Your task to perform on an android device: change the upload size in google photos Image 0: 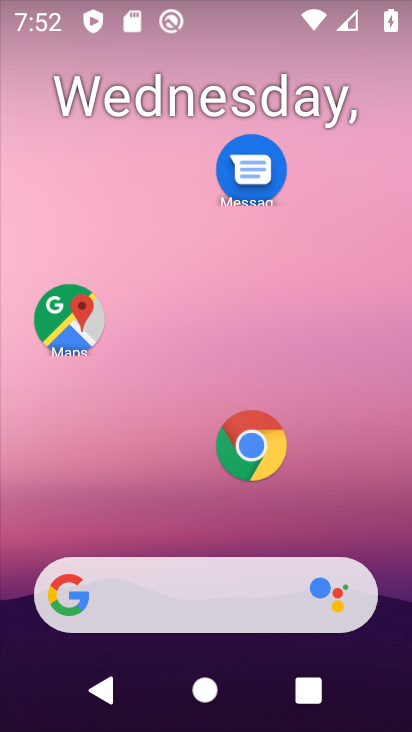
Step 0: drag from (262, 687) to (211, 215)
Your task to perform on an android device: change the upload size in google photos Image 1: 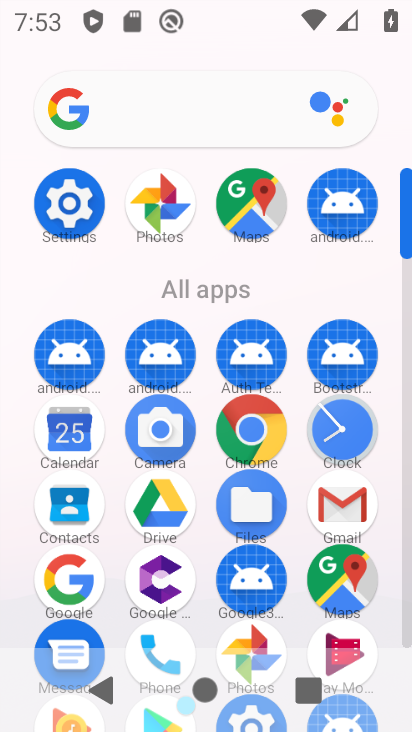
Step 1: click (245, 641)
Your task to perform on an android device: change the upload size in google photos Image 2: 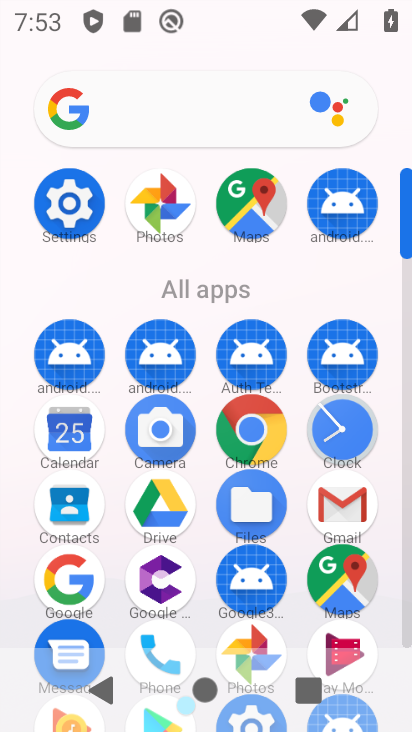
Step 2: click (246, 642)
Your task to perform on an android device: change the upload size in google photos Image 3: 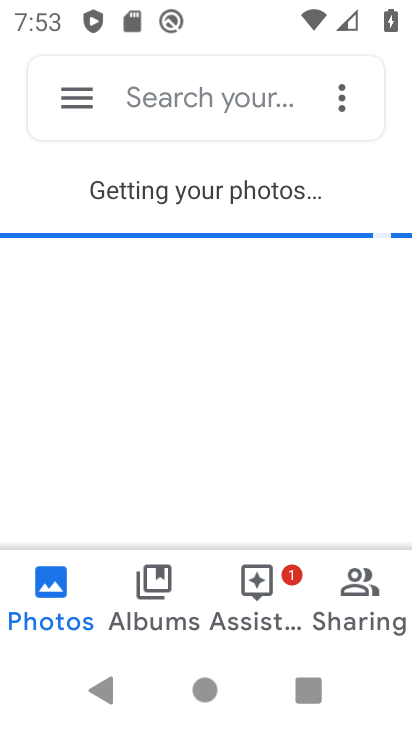
Step 3: click (75, 103)
Your task to perform on an android device: change the upload size in google photos Image 4: 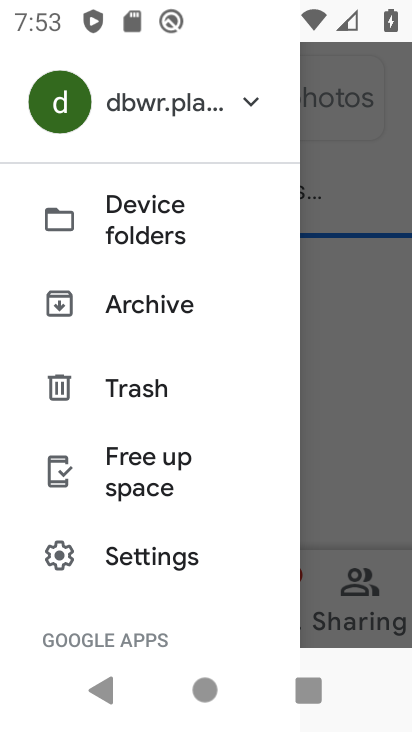
Step 4: click (138, 562)
Your task to perform on an android device: change the upload size in google photos Image 5: 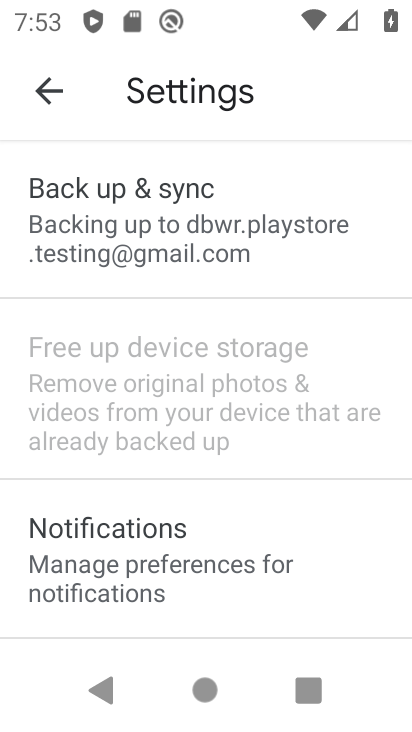
Step 5: click (115, 212)
Your task to perform on an android device: change the upload size in google photos Image 6: 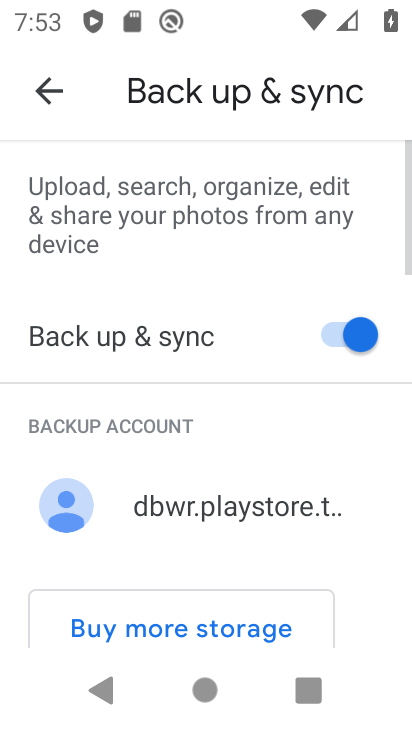
Step 6: click (114, 197)
Your task to perform on an android device: change the upload size in google photos Image 7: 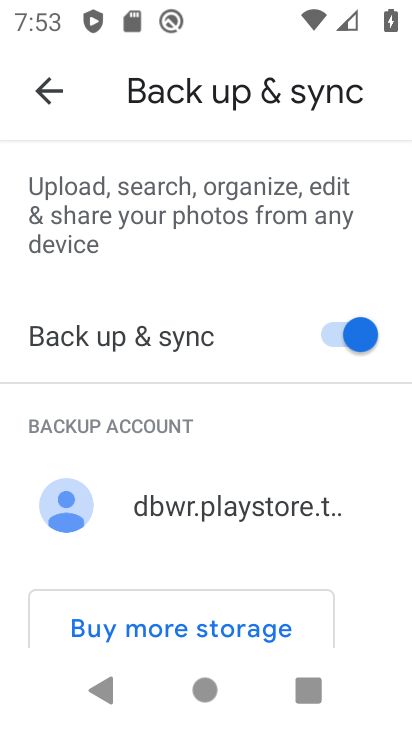
Step 7: click (114, 197)
Your task to perform on an android device: change the upload size in google photos Image 8: 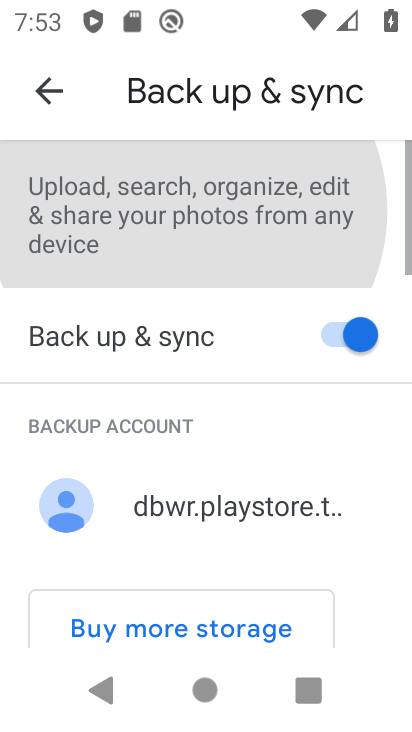
Step 8: click (114, 197)
Your task to perform on an android device: change the upload size in google photos Image 9: 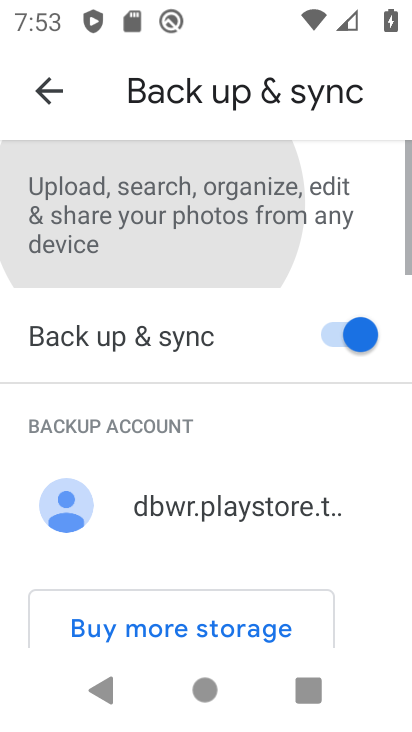
Step 9: click (114, 196)
Your task to perform on an android device: change the upload size in google photos Image 10: 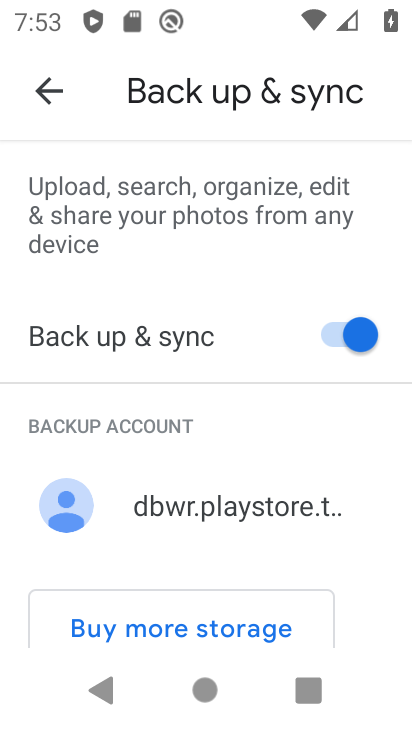
Step 10: click (103, 205)
Your task to perform on an android device: change the upload size in google photos Image 11: 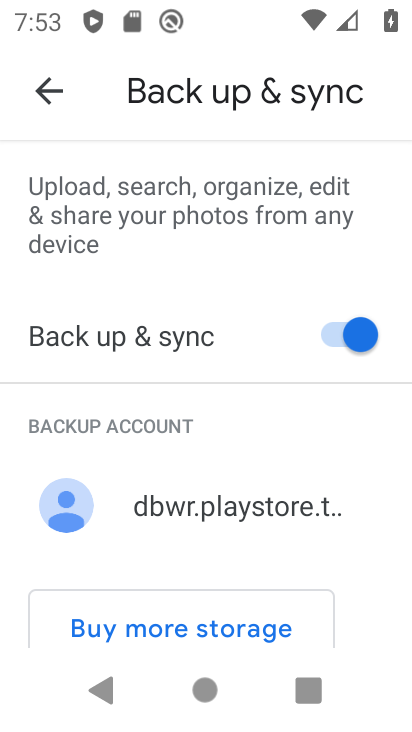
Step 11: click (103, 205)
Your task to perform on an android device: change the upload size in google photos Image 12: 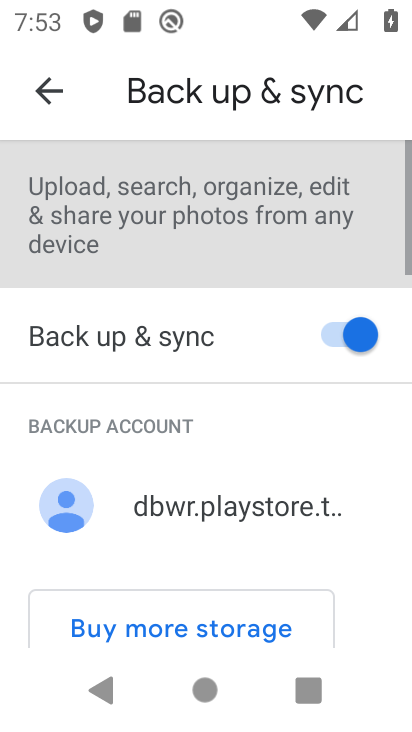
Step 12: click (103, 205)
Your task to perform on an android device: change the upload size in google photos Image 13: 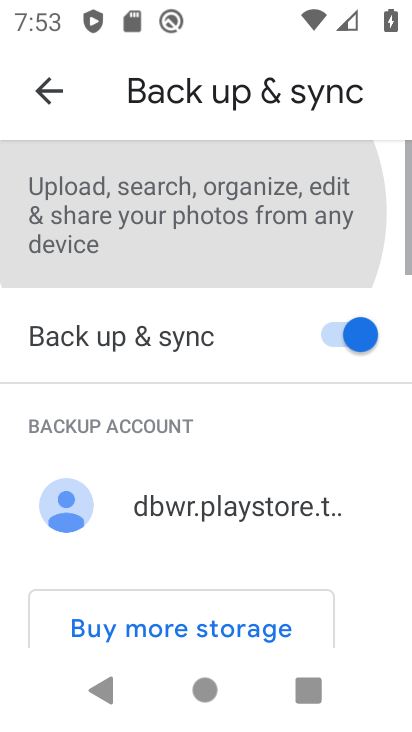
Step 13: click (103, 205)
Your task to perform on an android device: change the upload size in google photos Image 14: 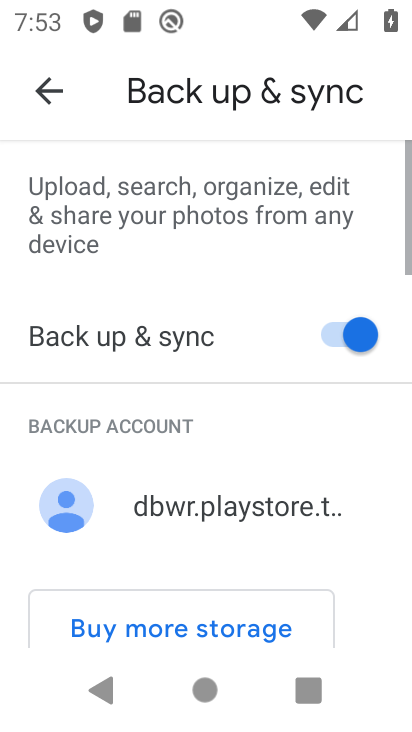
Step 14: click (103, 205)
Your task to perform on an android device: change the upload size in google photos Image 15: 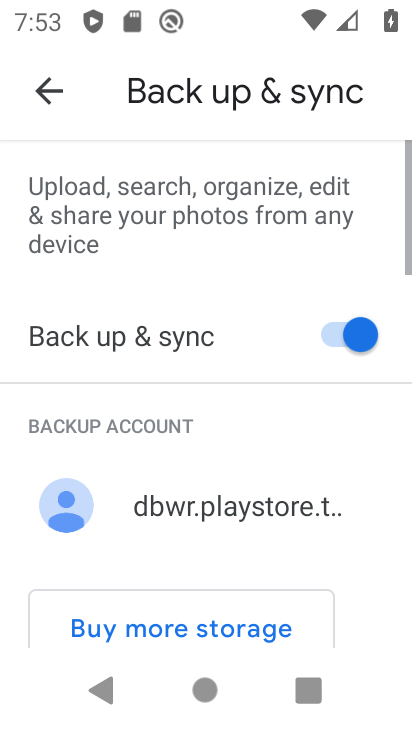
Step 15: drag from (139, 511) to (159, 178)
Your task to perform on an android device: change the upload size in google photos Image 16: 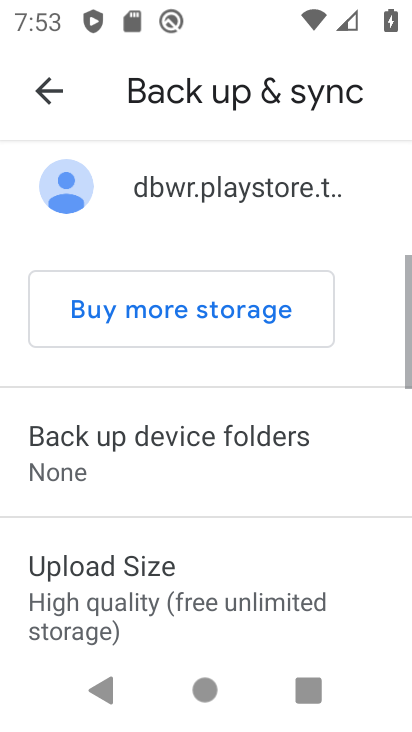
Step 16: drag from (216, 478) to (210, 144)
Your task to perform on an android device: change the upload size in google photos Image 17: 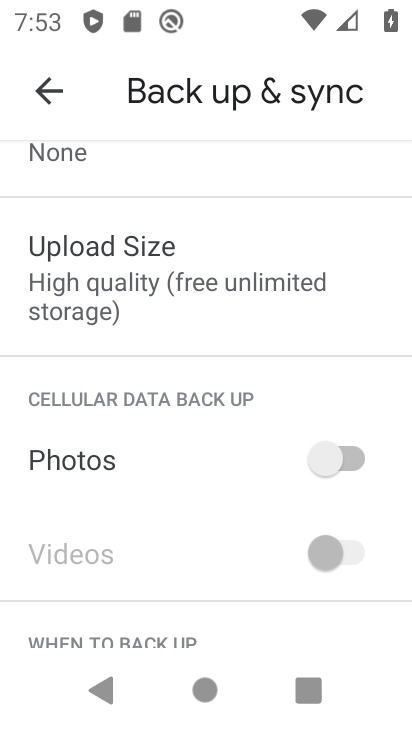
Step 17: click (95, 277)
Your task to perform on an android device: change the upload size in google photos Image 18: 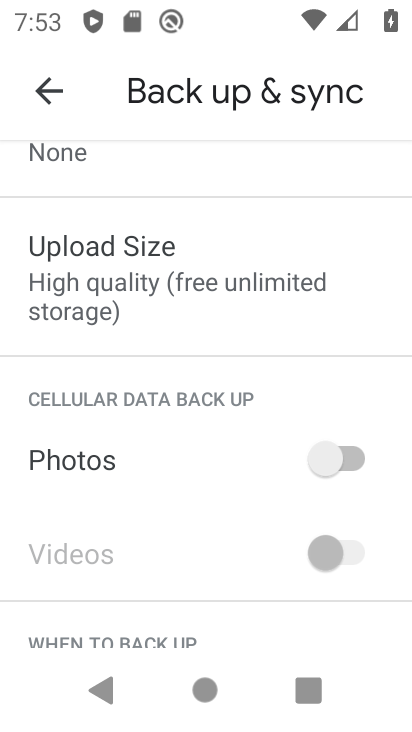
Step 18: click (96, 278)
Your task to perform on an android device: change the upload size in google photos Image 19: 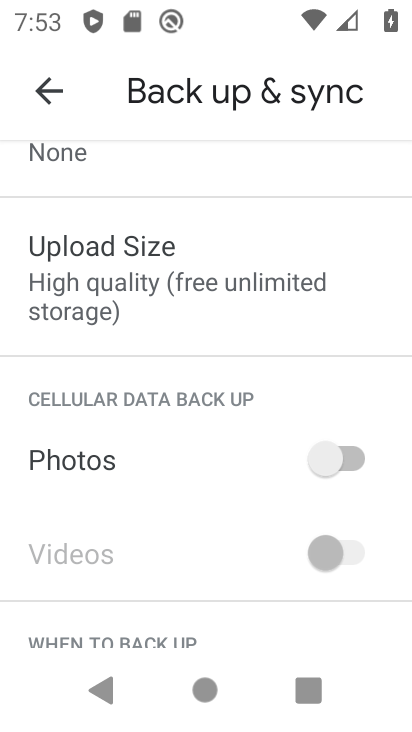
Step 19: click (97, 278)
Your task to perform on an android device: change the upload size in google photos Image 20: 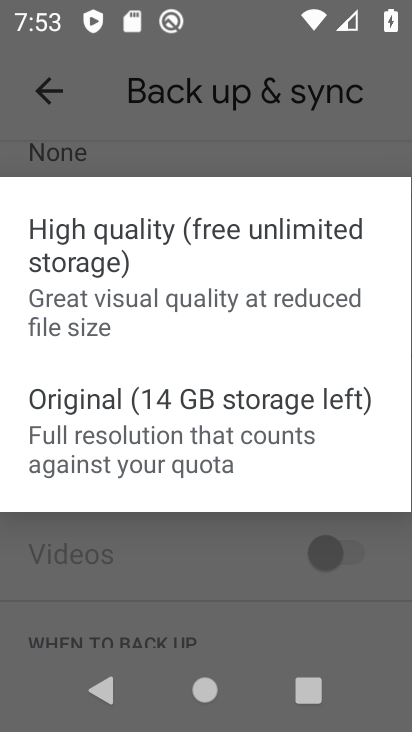
Step 20: click (101, 278)
Your task to perform on an android device: change the upload size in google photos Image 21: 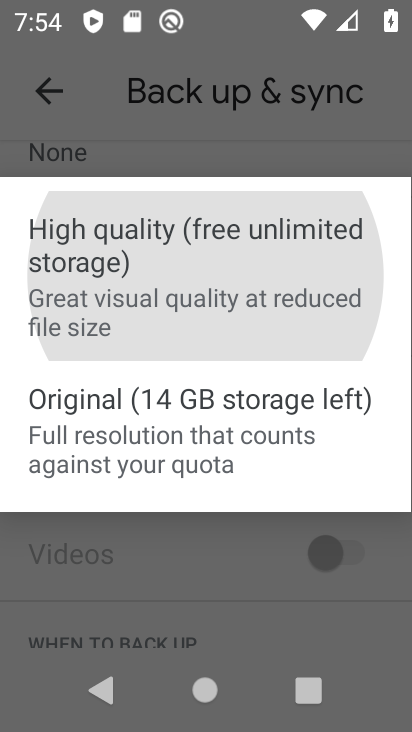
Step 21: click (102, 278)
Your task to perform on an android device: change the upload size in google photos Image 22: 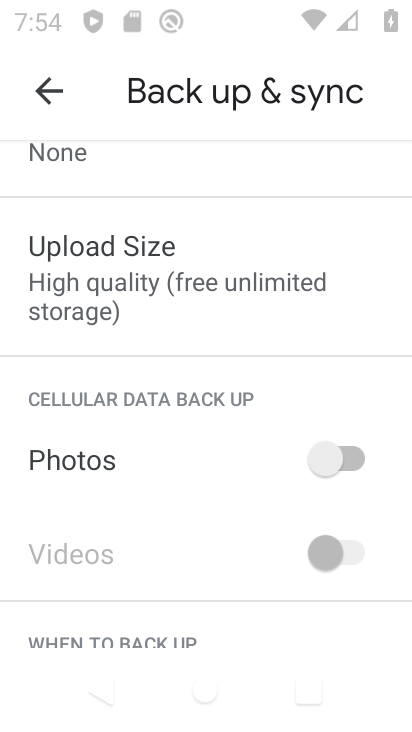
Step 22: click (103, 278)
Your task to perform on an android device: change the upload size in google photos Image 23: 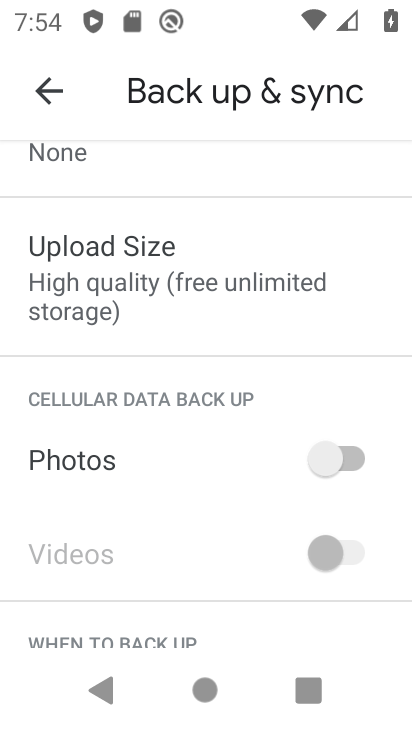
Step 23: click (70, 270)
Your task to perform on an android device: change the upload size in google photos Image 24: 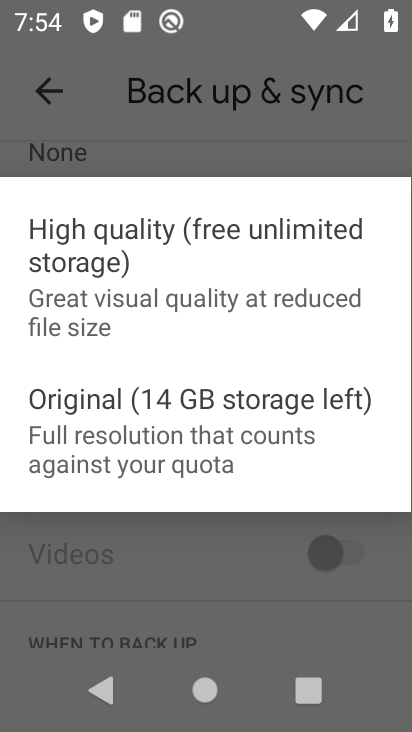
Step 24: click (87, 421)
Your task to perform on an android device: change the upload size in google photos Image 25: 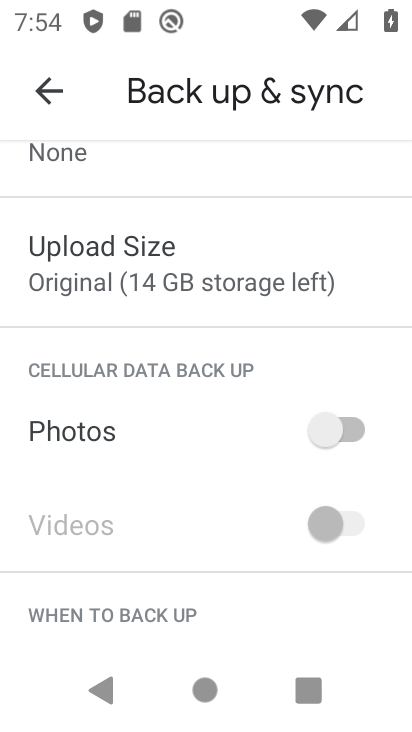
Step 25: task complete